Your task to perform on an android device: Clear the cart on bestbuy. Add "macbook air" to the cart on bestbuy Image 0: 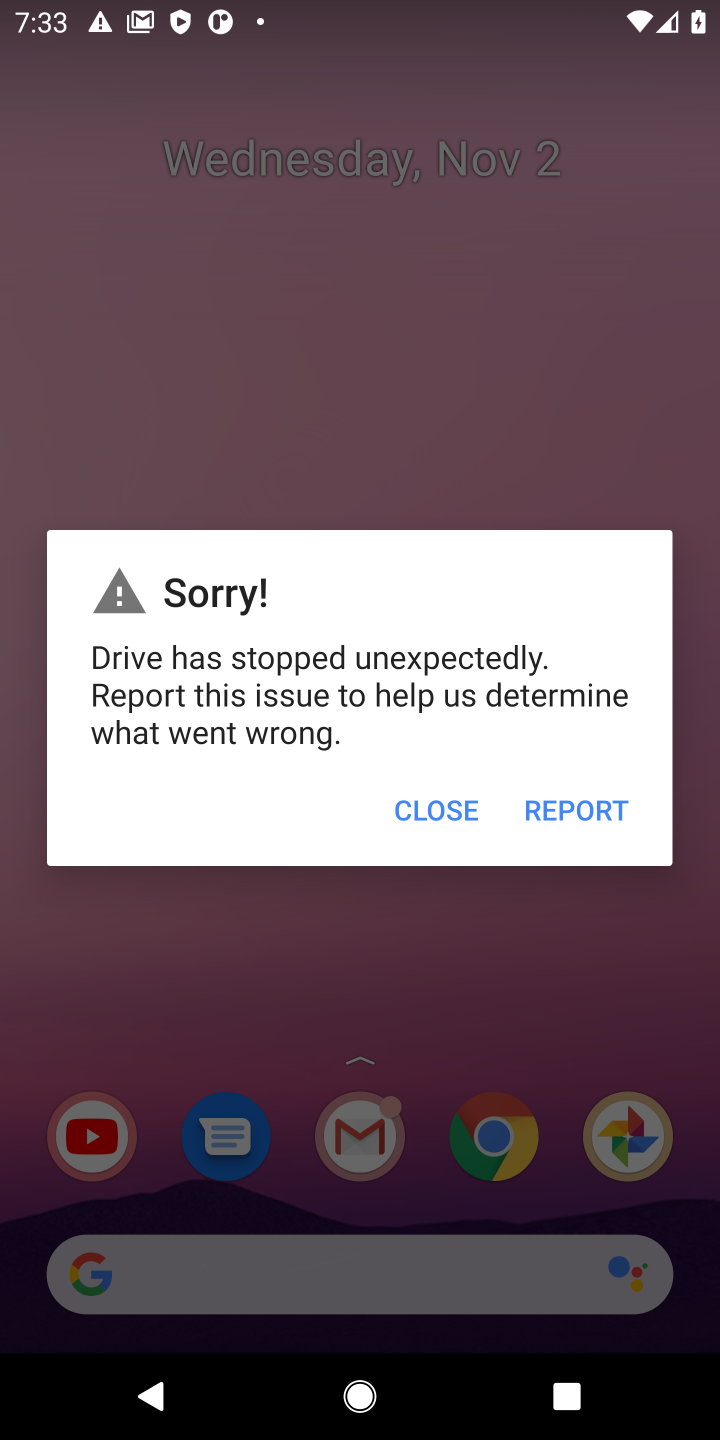
Step 0: press home button
Your task to perform on an android device: Clear the cart on bestbuy. Add "macbook air" to the cart on bestbuy Image 1: 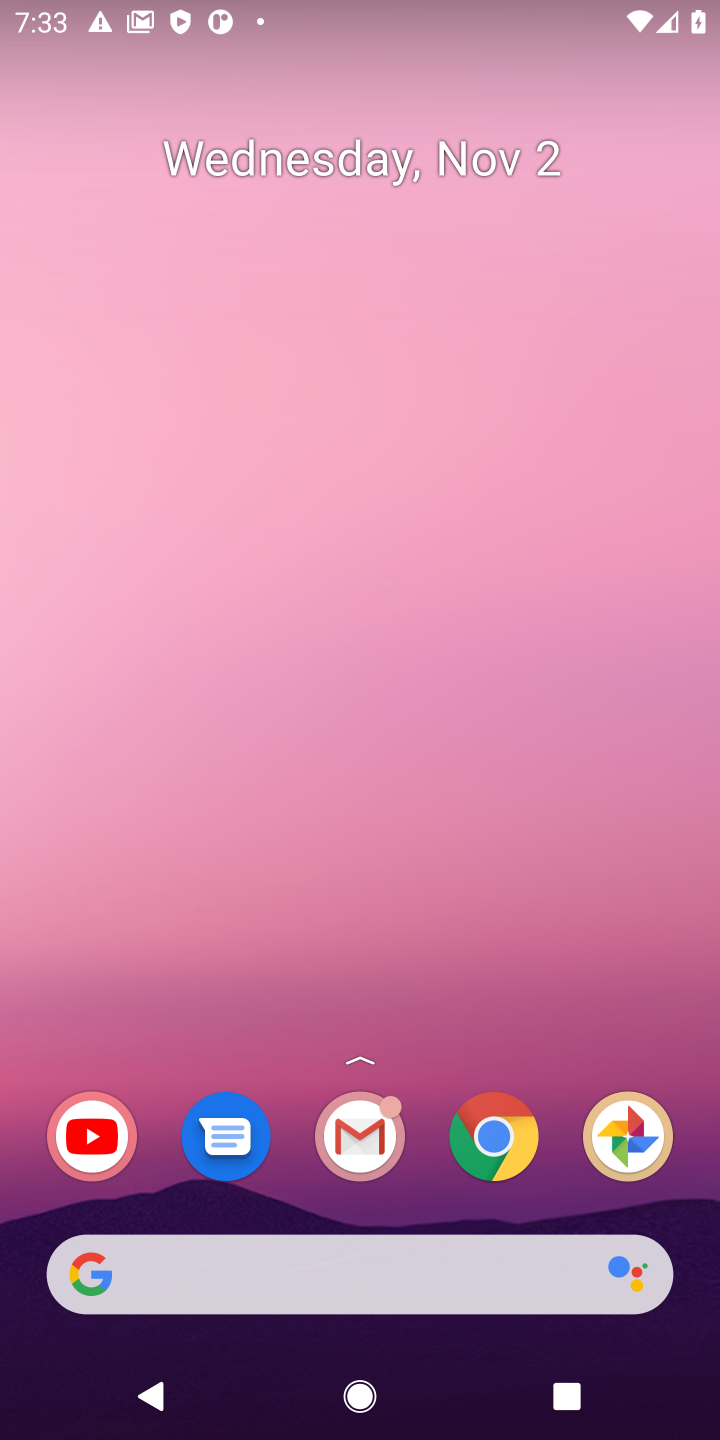
Step 1: drag from (305, 1005) to (329, 277)
Your task to perform on an android device: Clear the cart on bestbuy. Add "macbook air" to the cart on bestbuy Image 2: 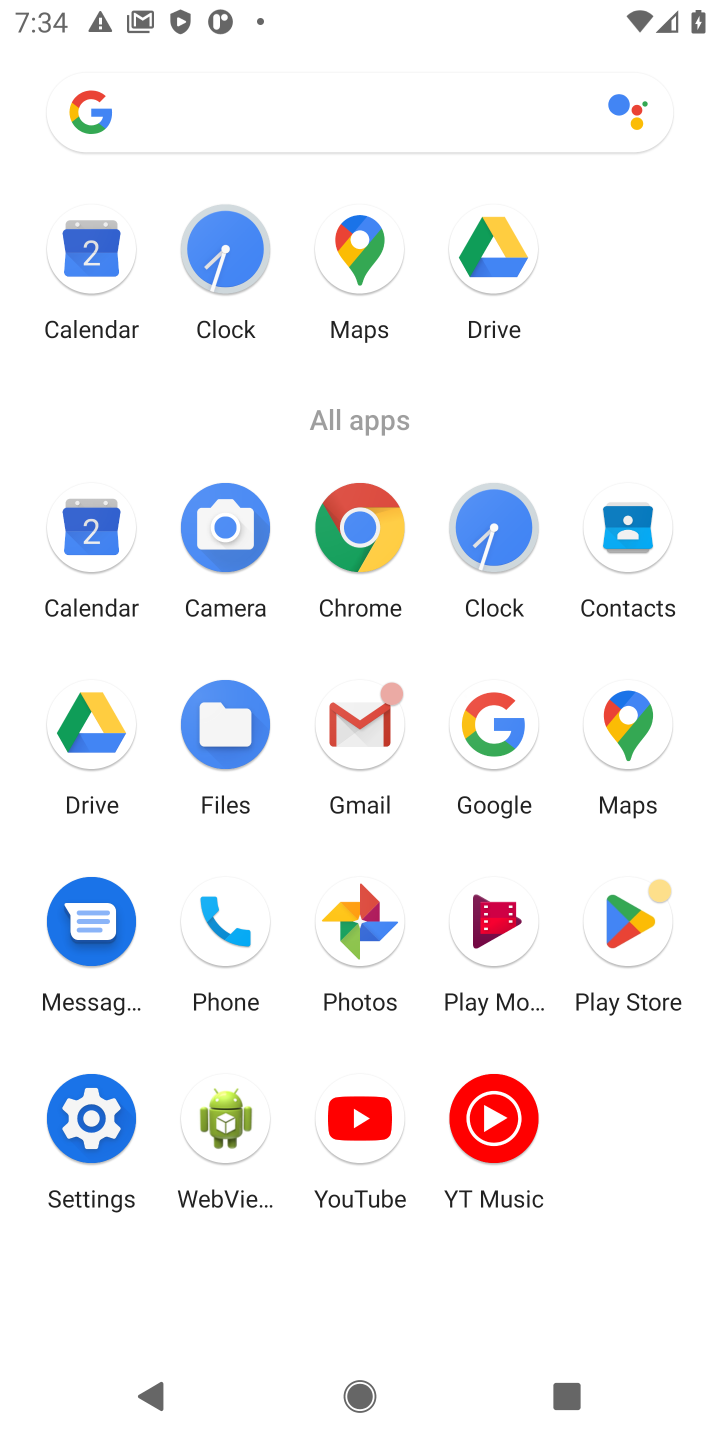
Step 2: click (482, 724)
Your task to perform on an android device: Clear the cart on bestbuy. Add "macbook air" to the cart on bestbuy Image 3: 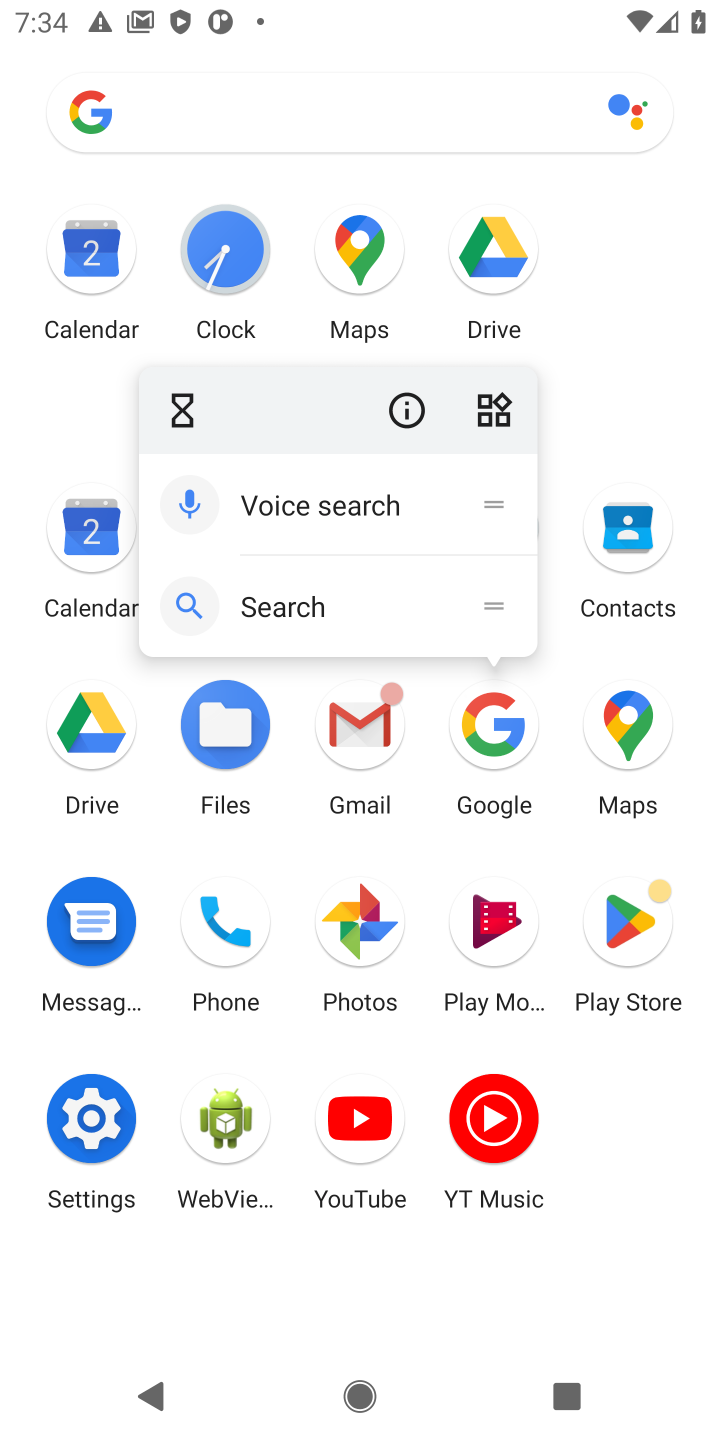
Step 3: click (501, 740)
Your task to perform on an android device: Clear the cart on bestbuy. Add "macbook air" to the cart on bestbuy Image 4: 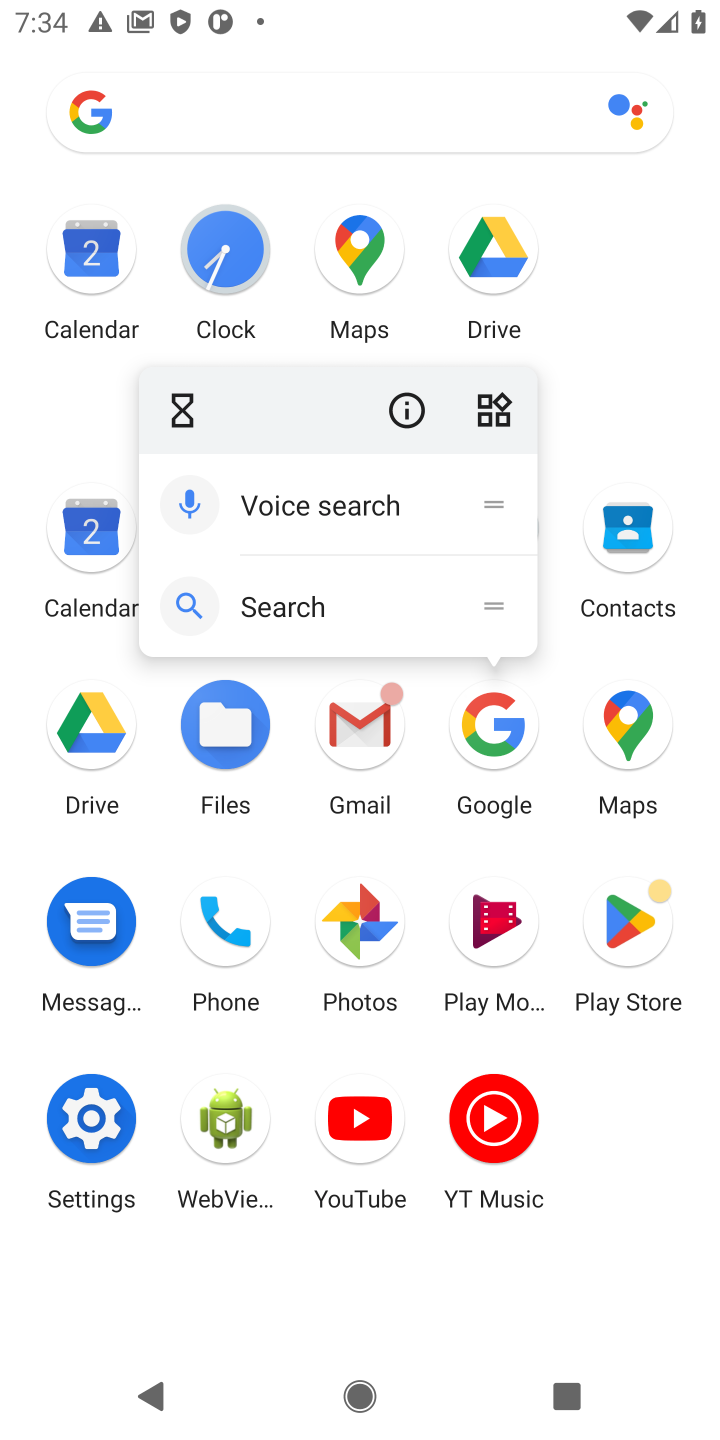
Step 4: click (484, 714)
Your task to perform on an android device: Clear the cart on bestbuy. Add "macbook air" to the cart on bestbuy Image 5: 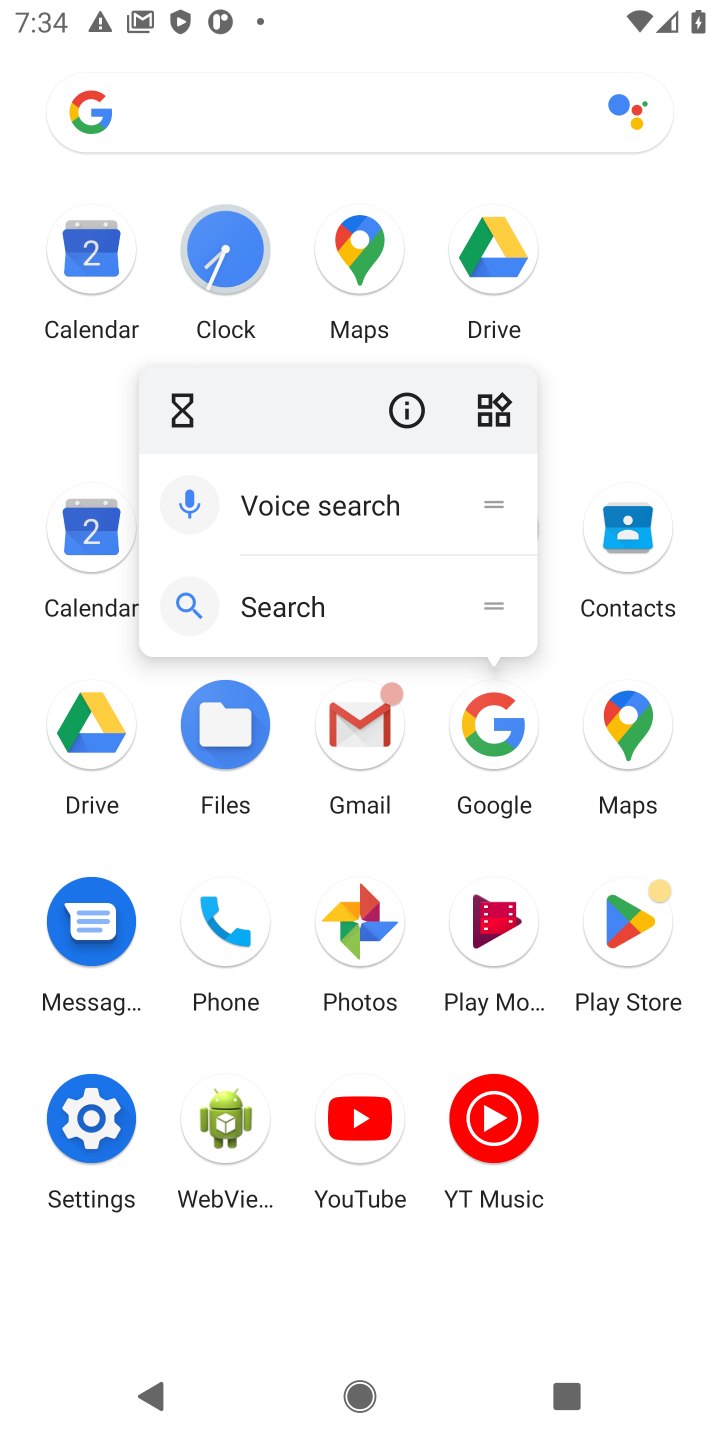
Step 5: click (505, 733)
Your task to perform on an android device: Clear the cart on bestbuy. Add "macbook air" to the cart on bestbuy Image 6: 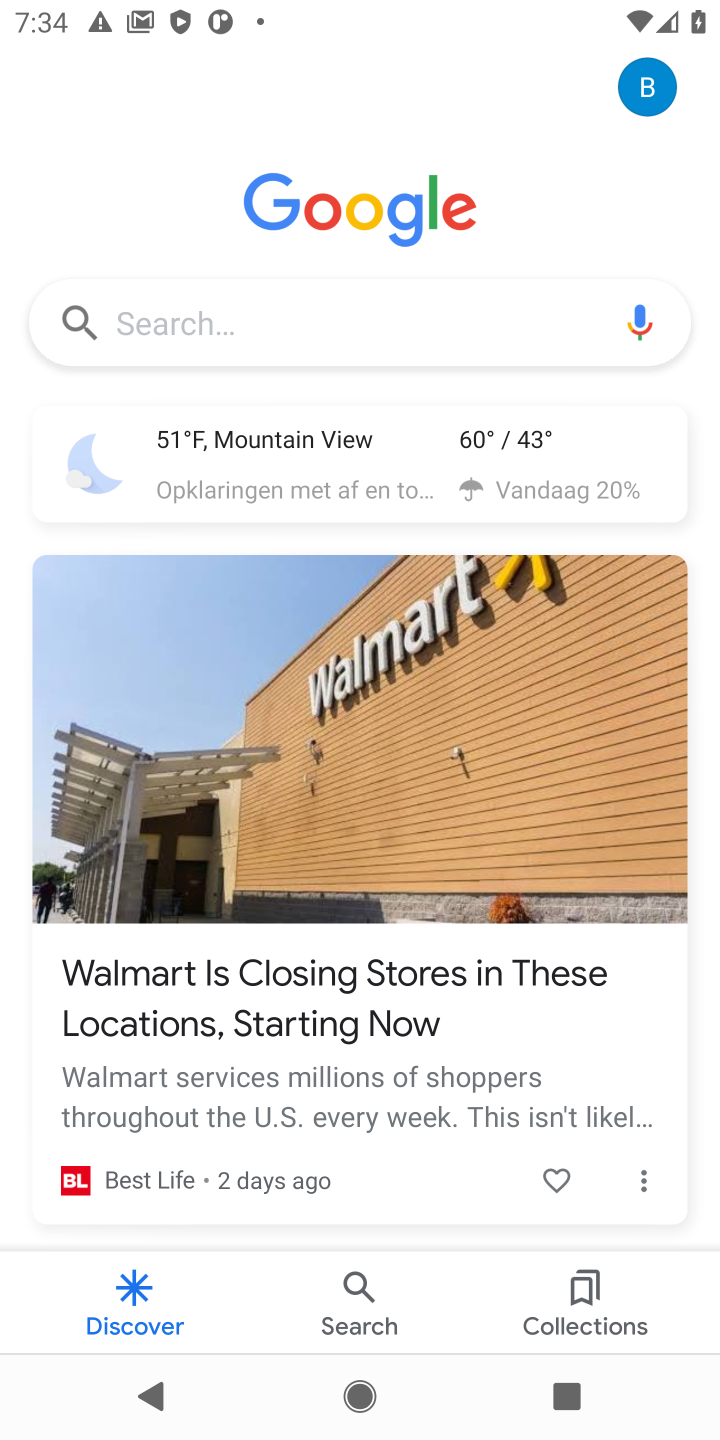
Step 6: click (329, 303)
Your task to perform on an android device: Clear the cart on bestbuy. Add "macbook air" to the cart on bestbuy Image 7: 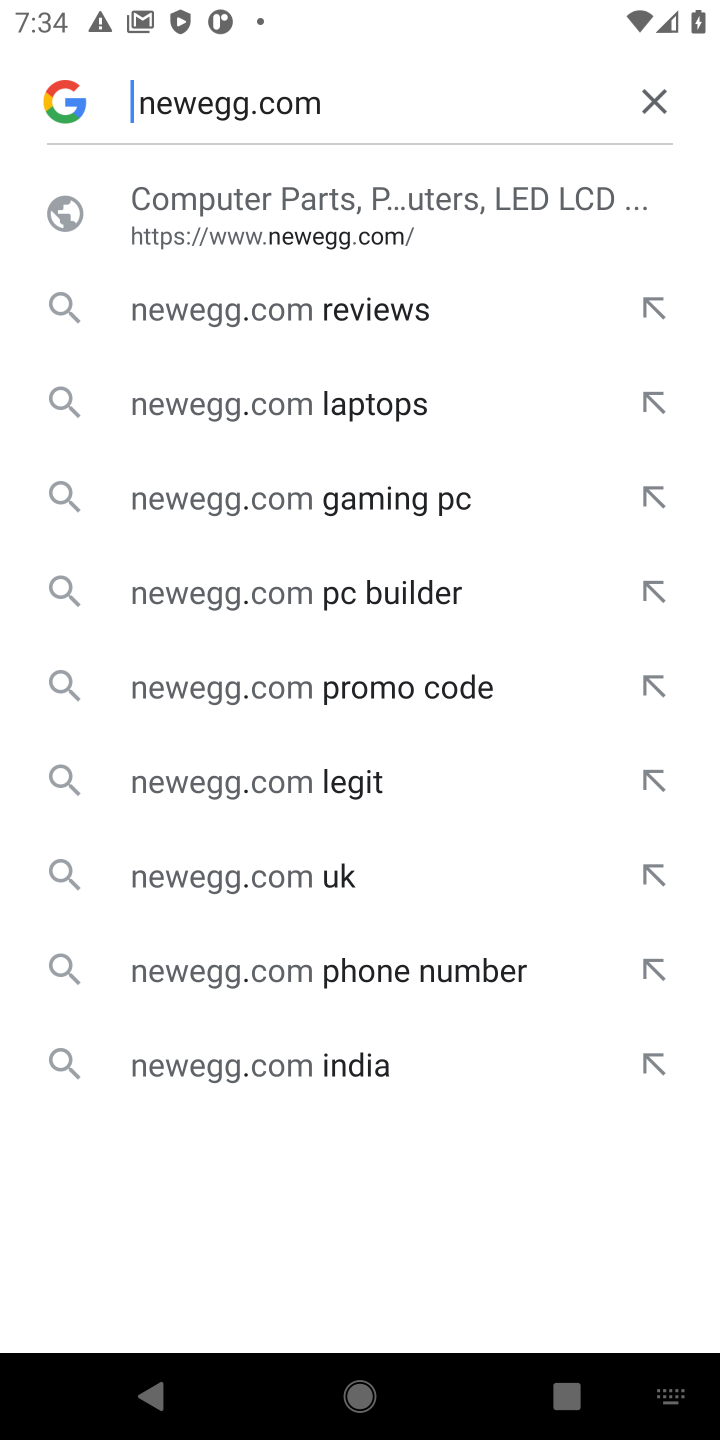
Step 7: type "bestbuy "
Your task to perform on an android device: Clear the cart on bestbuy. Add "macbook air" to the cart on bestbuy Image 8: 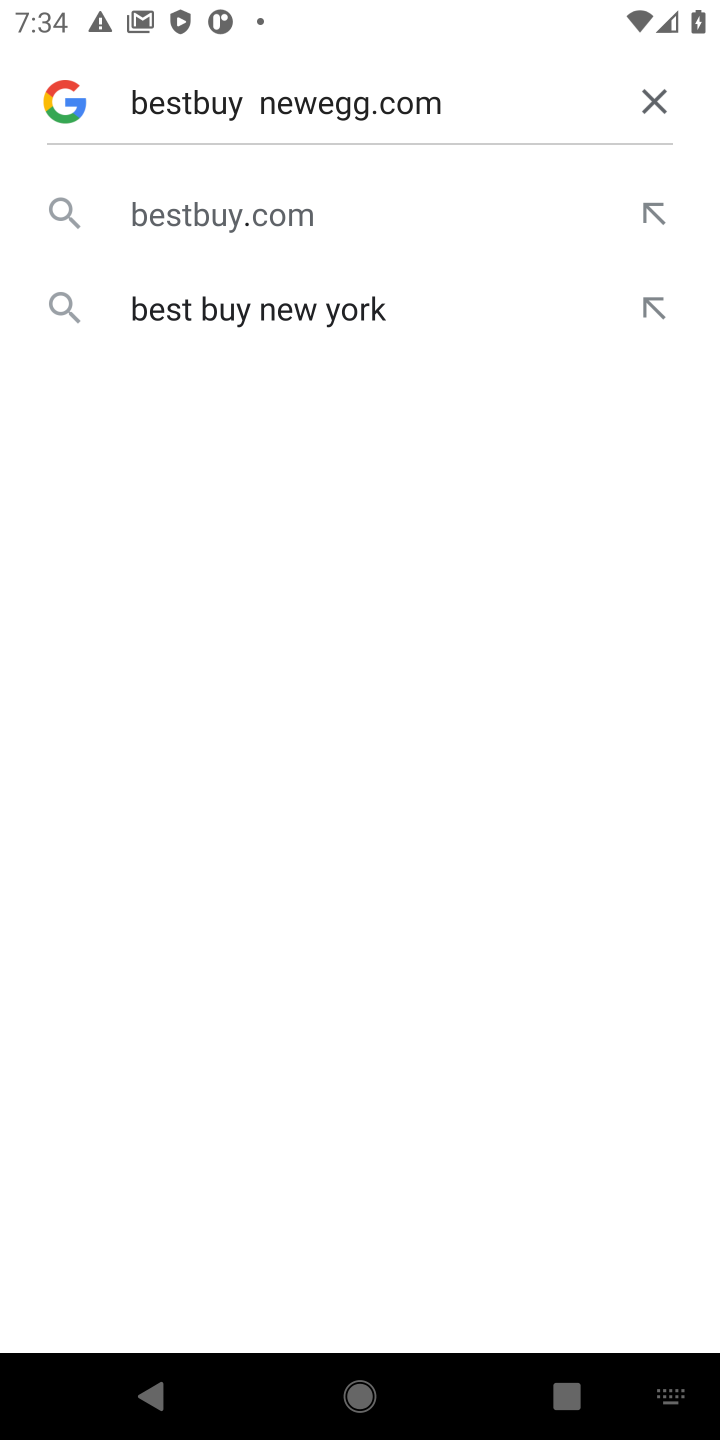
Step 8: click (245, 204)
Your task to perform on an android device: Clear the cart on bestbuy. Add "macbook air" to the cart on bestbuy Image 9: 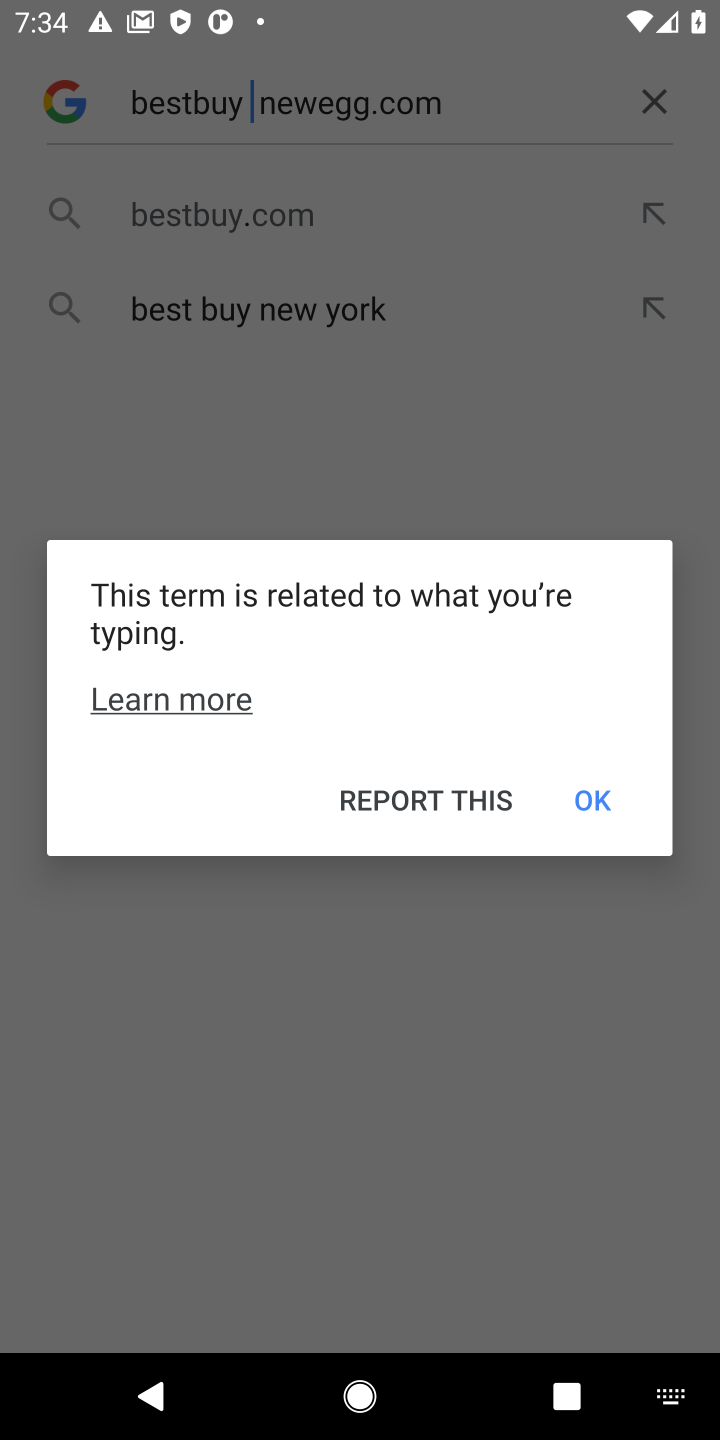
Step 9: click (573, 759)
Your task to perform on an android device: Clear the cart on bestbuy. Add "macbook air" to the cart on bestbuy Image 10: 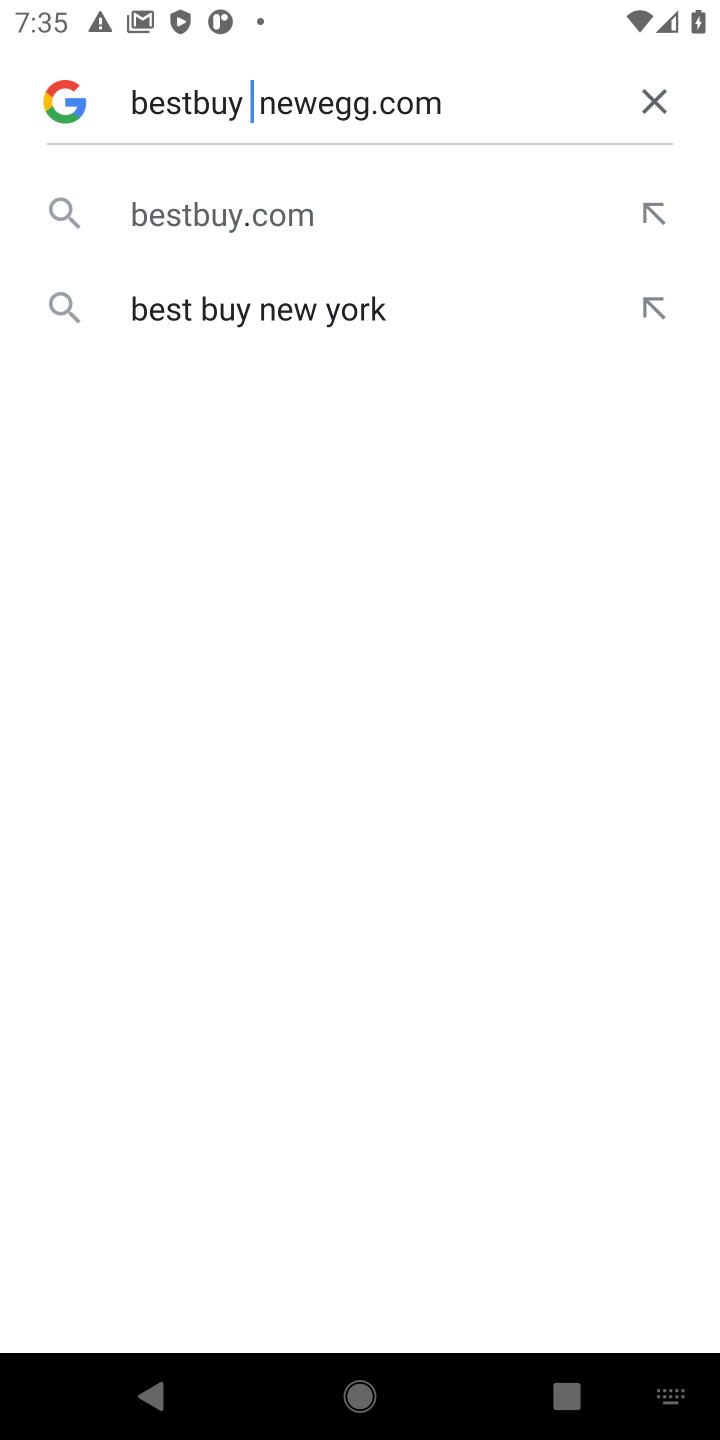
Step 10: click (327, 180)
Your task to perform on an android device: Clear the cart on bestbuy. Add "macbook air" to the cart on bestbuy Image 11: 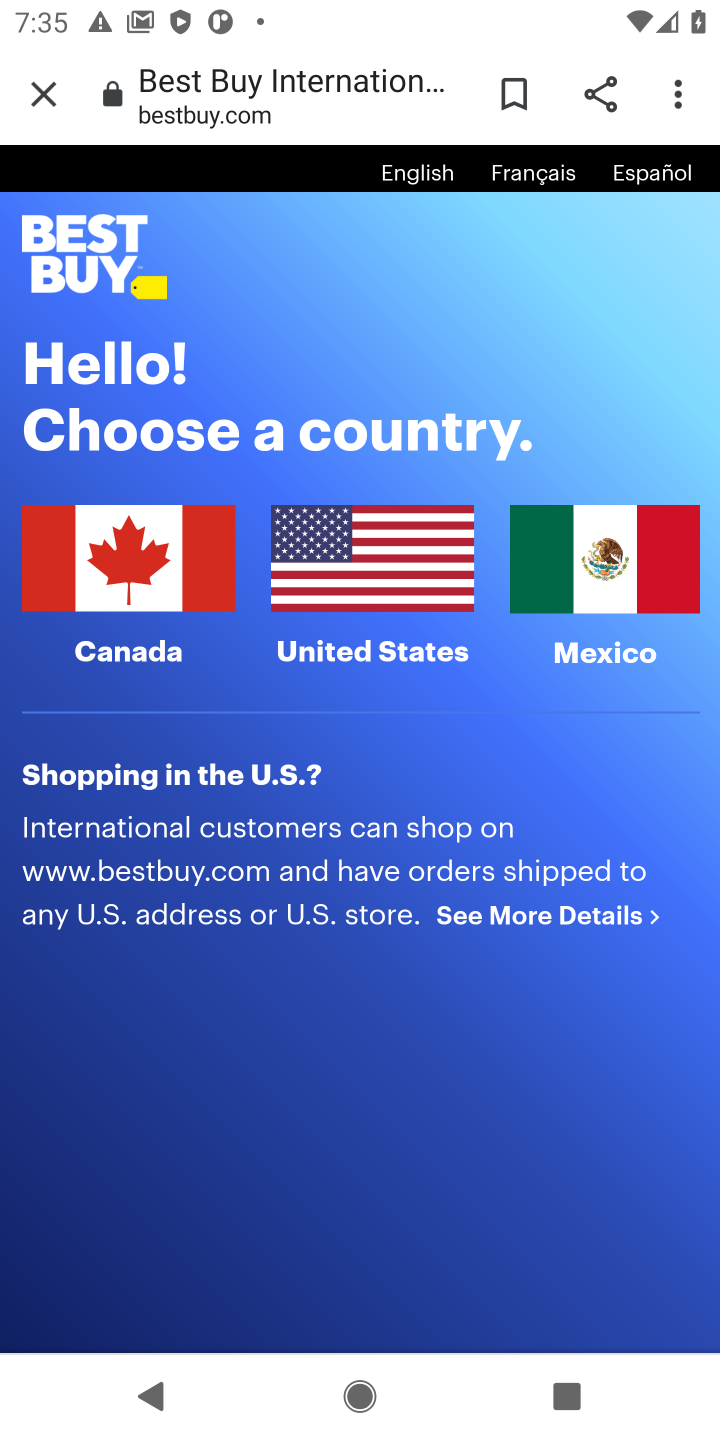
Step 11: click (310, 587)
Your task to perform on an android device: Clear the cart on bestbuy. Add "macbook air" to the cart on bestbuy Image 12: 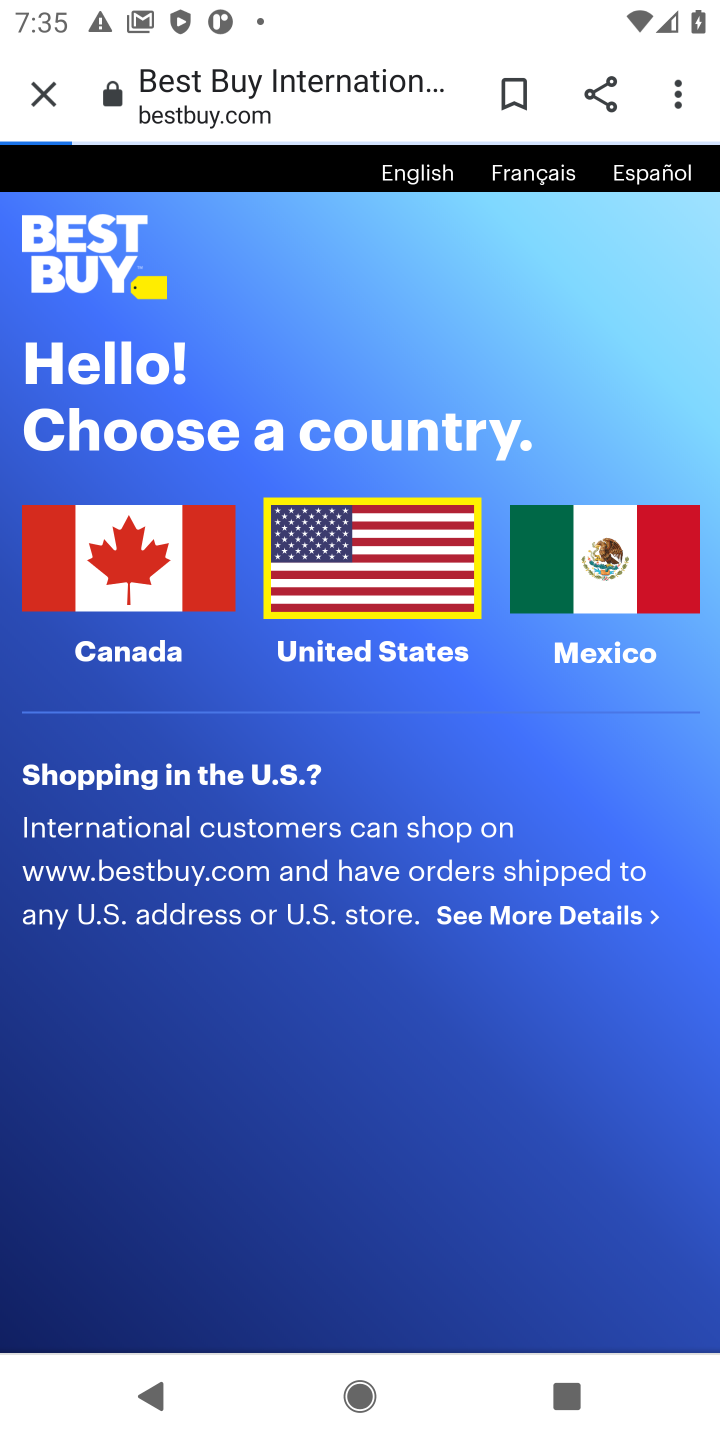
Step 12: click (310, 587)
Your task to perform on an android device: Clear the cart on bestbuy. Add "macbook air" to the cart on bestbuy Image 13: 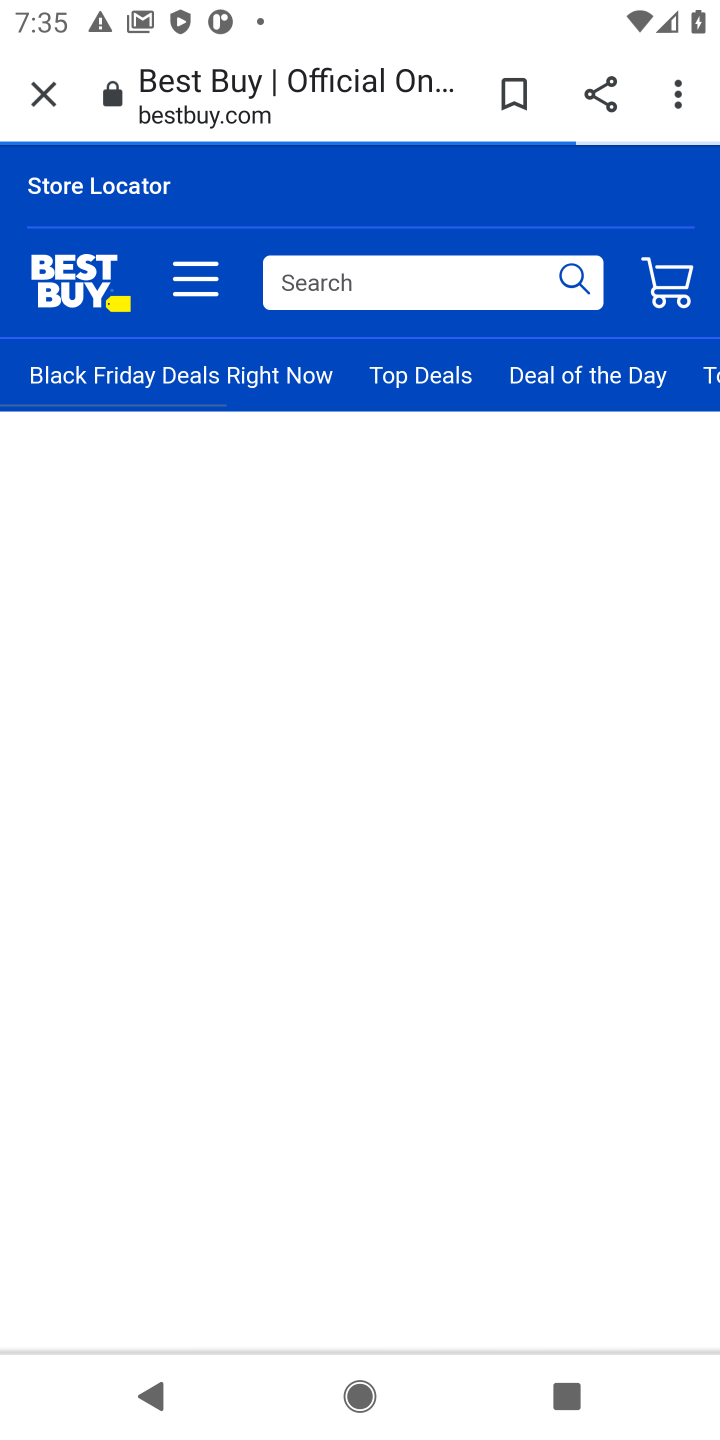
Step 13: click (310, 578)
Your task to perform on an android device: Clear the cart on bestbuy. Add "macbook air" to the cart on bestbuy Image 14: 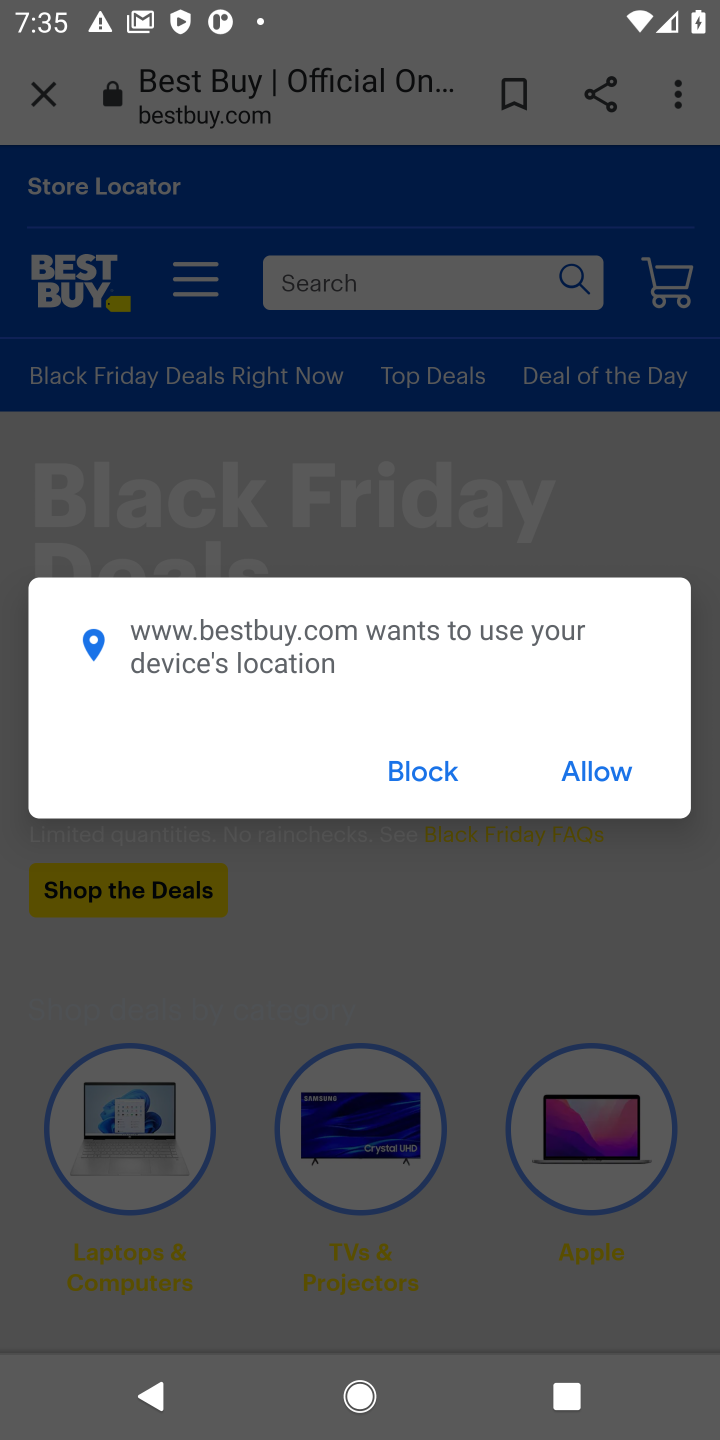
Step 14: click (562, 781)
Your task to perform on an android device: Clear the cart on bestbuy. Add "macbook air" to the cart on bestbuy Image 15: 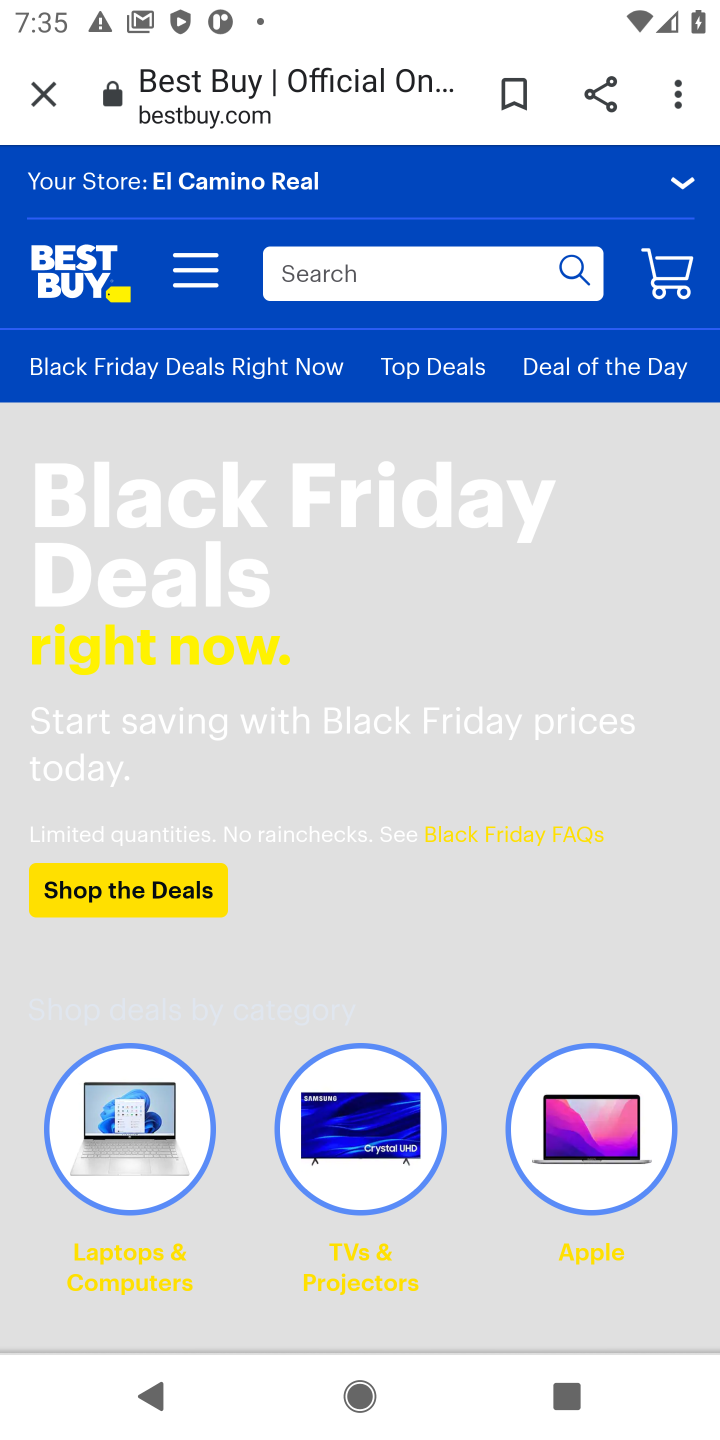
Step 15: click (380, 261)
Your task to perform on an android device: Clear the cart on bestbuy. Add "macbook air" to the cart on bestbuy Image 16: 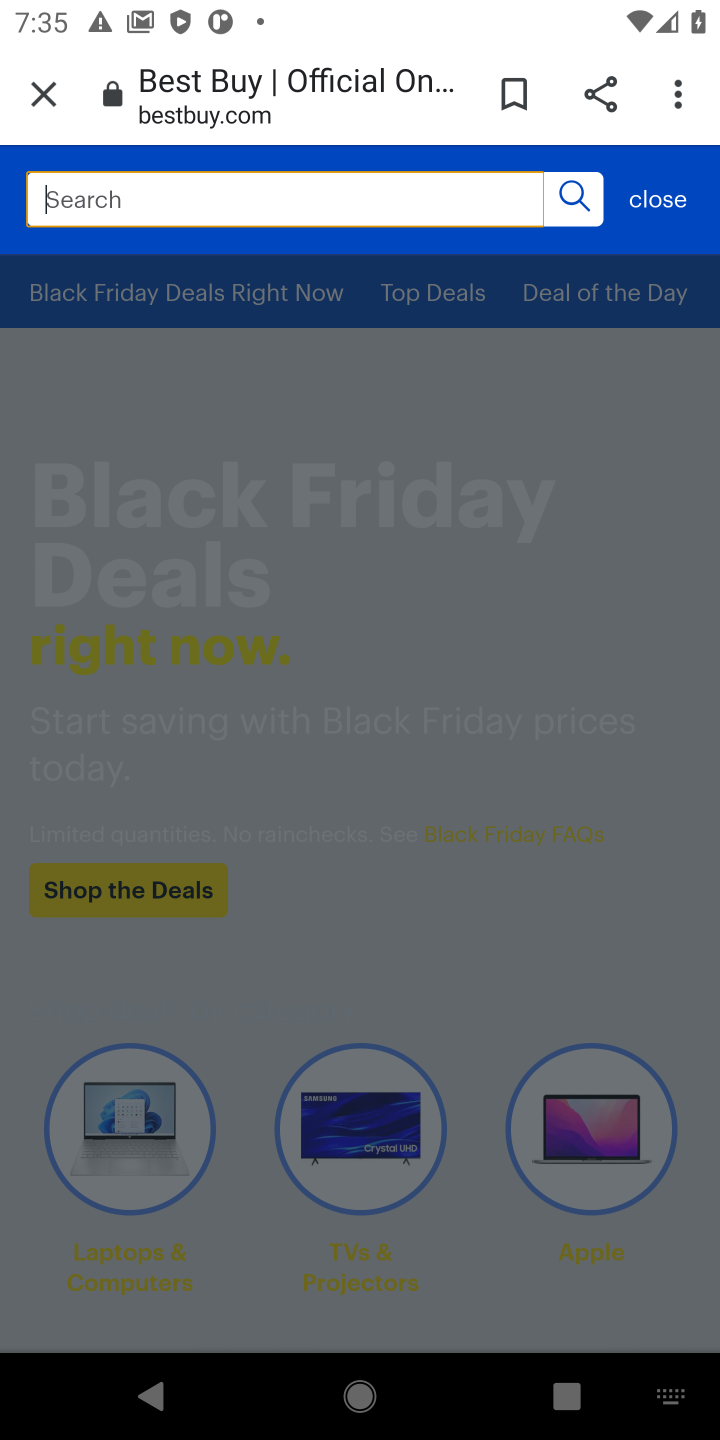
Step 16: type "macbook "
Your task to perform on an android device: Clear the cart on bestbuy. Add "macbook air" to the cart on bestbuy Image 17: 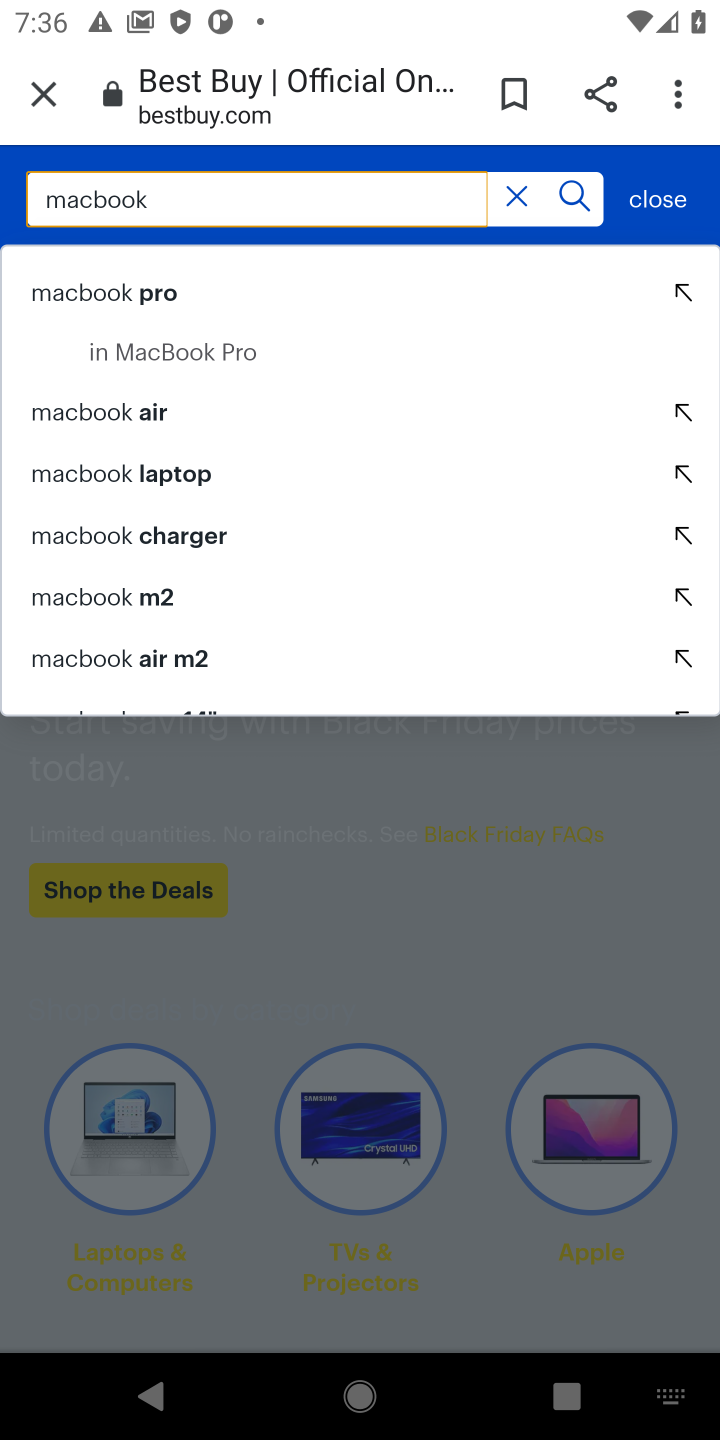
Step 17: click (138, 405)
Your task to perform on an android device: Clear the cart on bestbuy. Add "macbook air" to the cart on bestbuy Image 18: 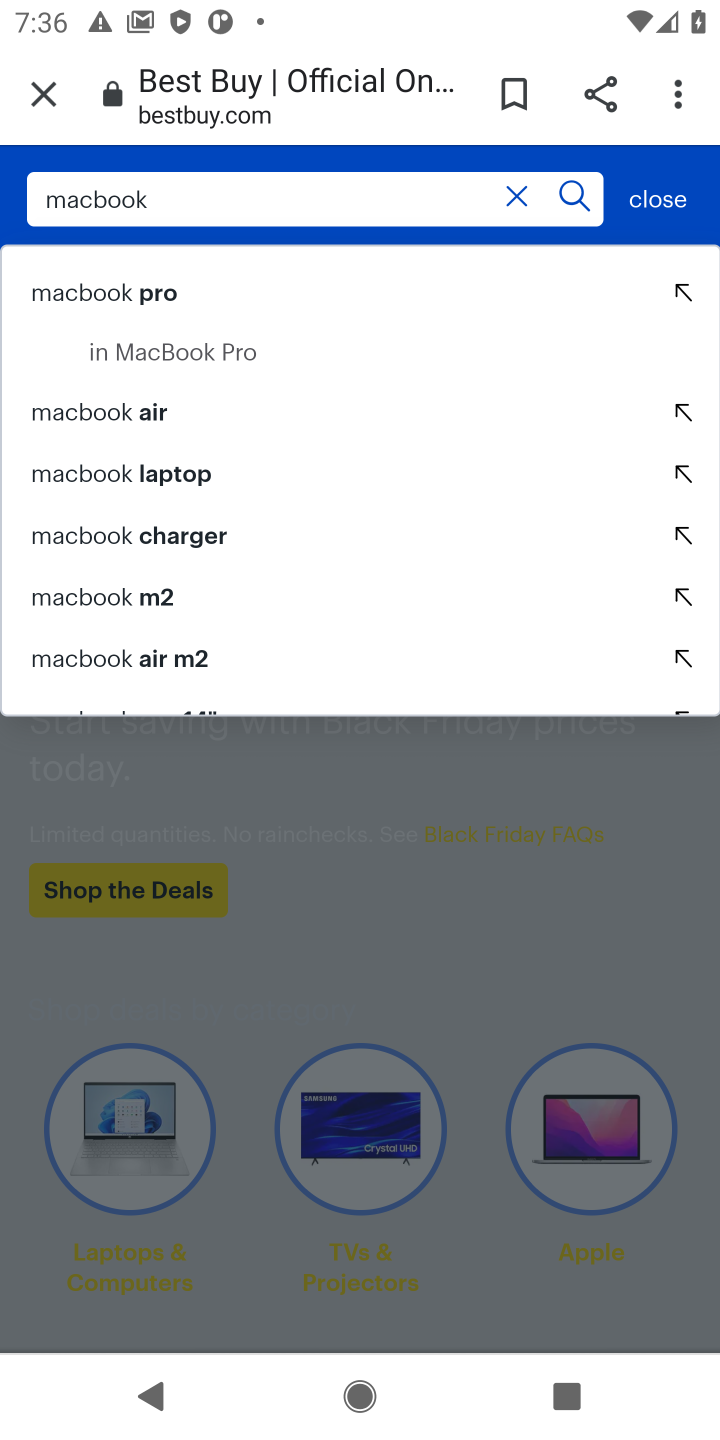
Step 18: click (145, 287)
Your task to perform on an android device: Clear the cart on bestbuy. Add "macbook air" to the cart on bestbuy Image 19: 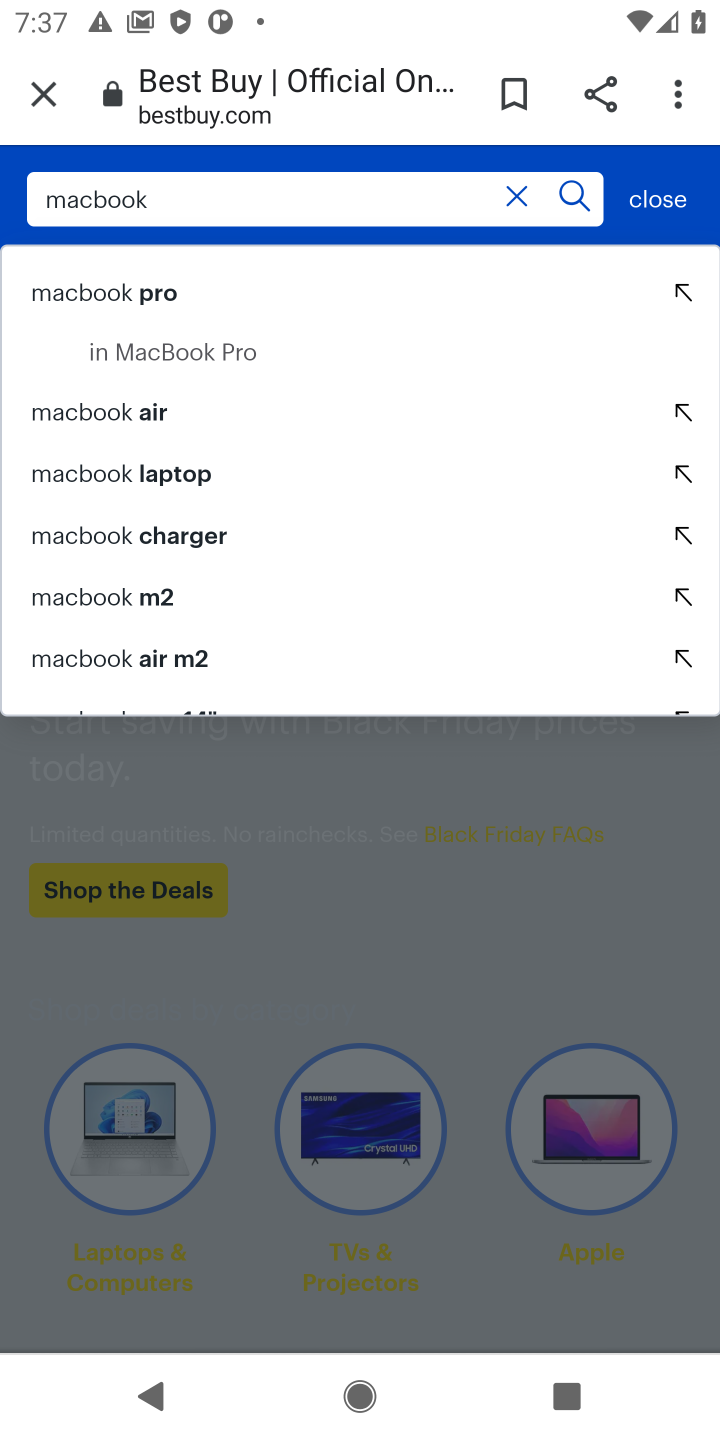
Step 19: click (106, 279)
Your task to perform on an android device: Clear the cart on bestbuy. Add "macbook air" to the cart on bestbuy Image 20: 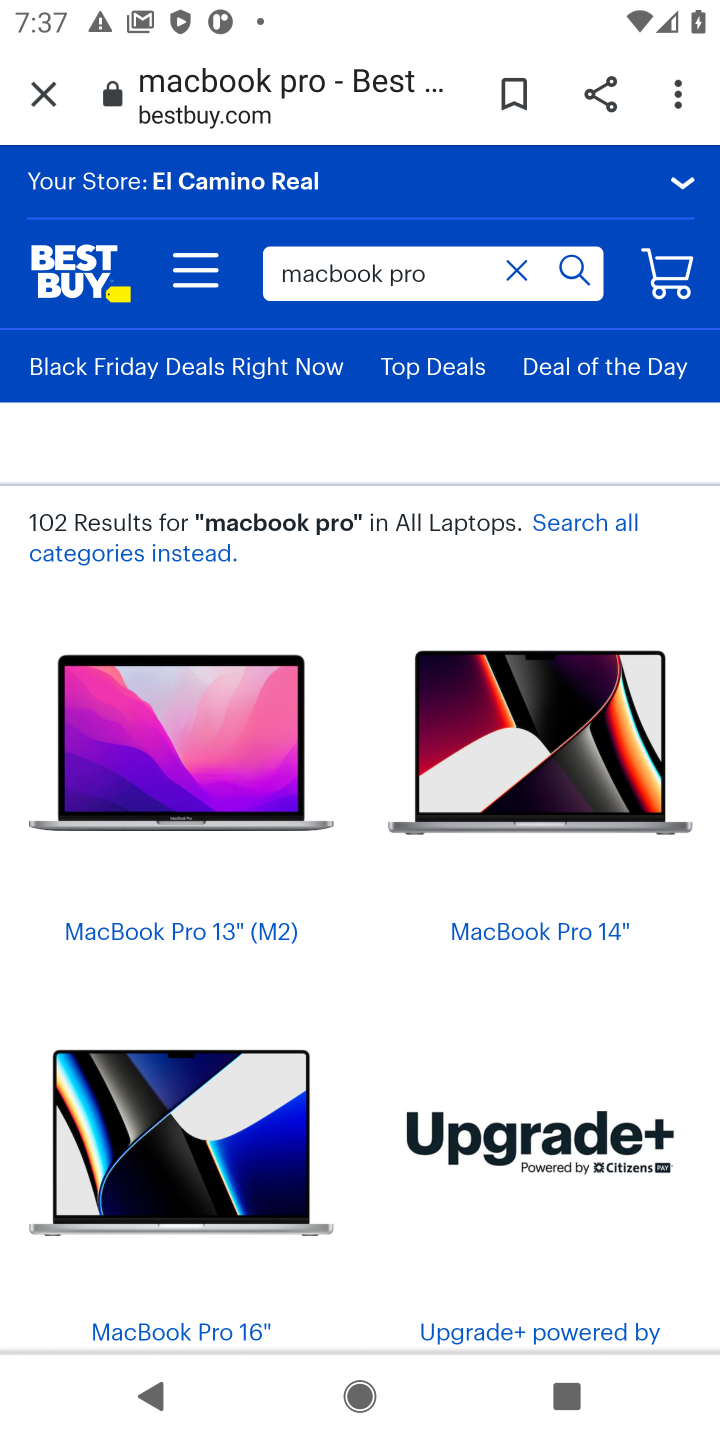
Step 20: click (501, 272)
Your task to perform on an android device: Clear the cart on bestbuy. Add "macbook air" to the cart on bestbuy Image 21: 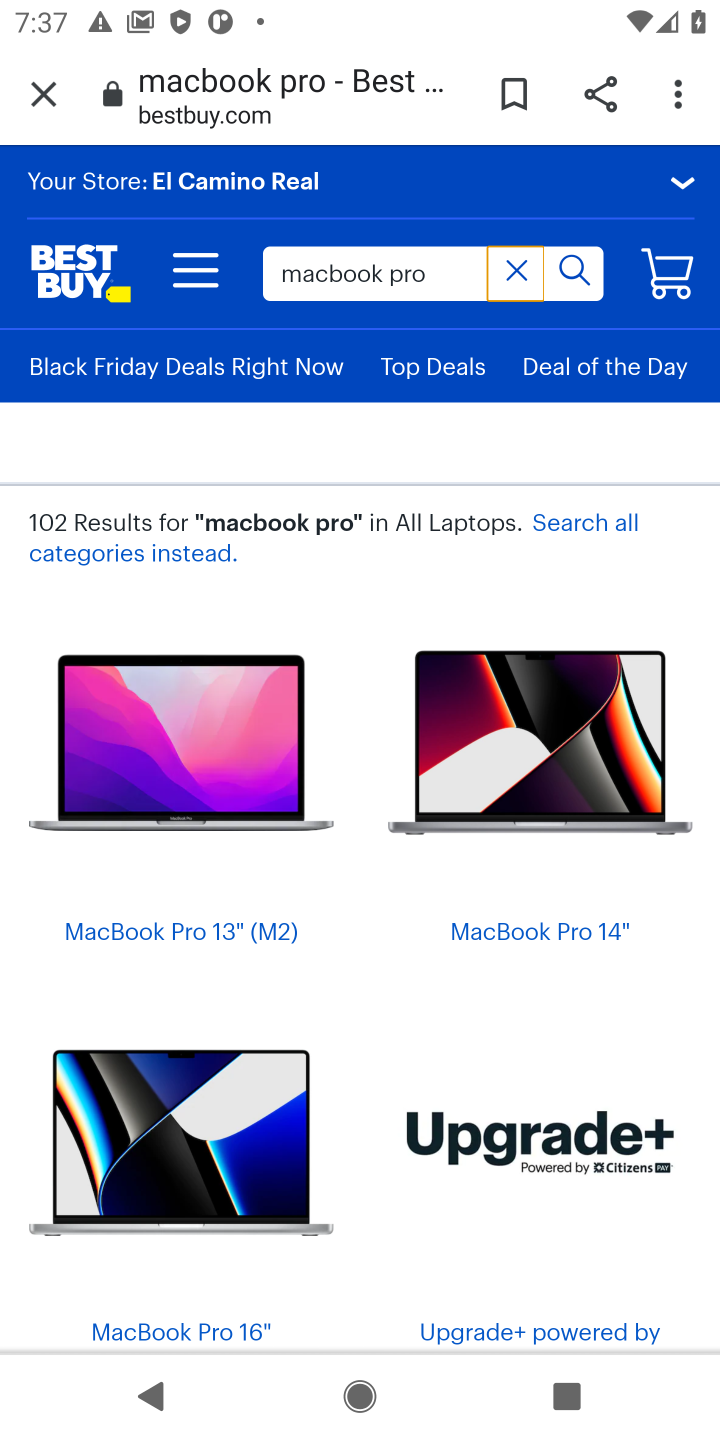
Step 21: click (512, 273)
Your task to perform on an android device: Clear the cart on bestbuy. Add "macbook air" to the cart on bestbuy Image 22: 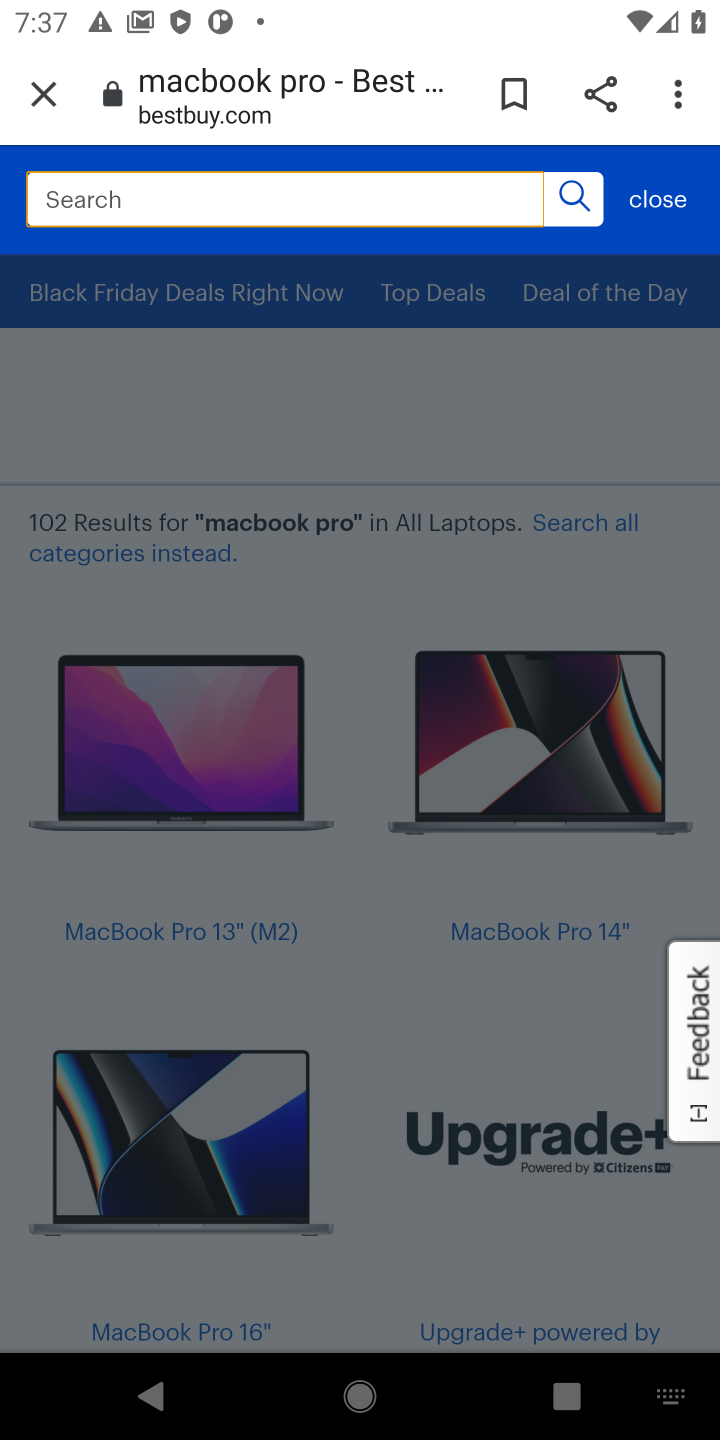
Step 22: click (232, 185)
Your task to perform on an android device: Clear the cart on bestbuy. Add "macbook air" to the cart on bestbuy Image 23: 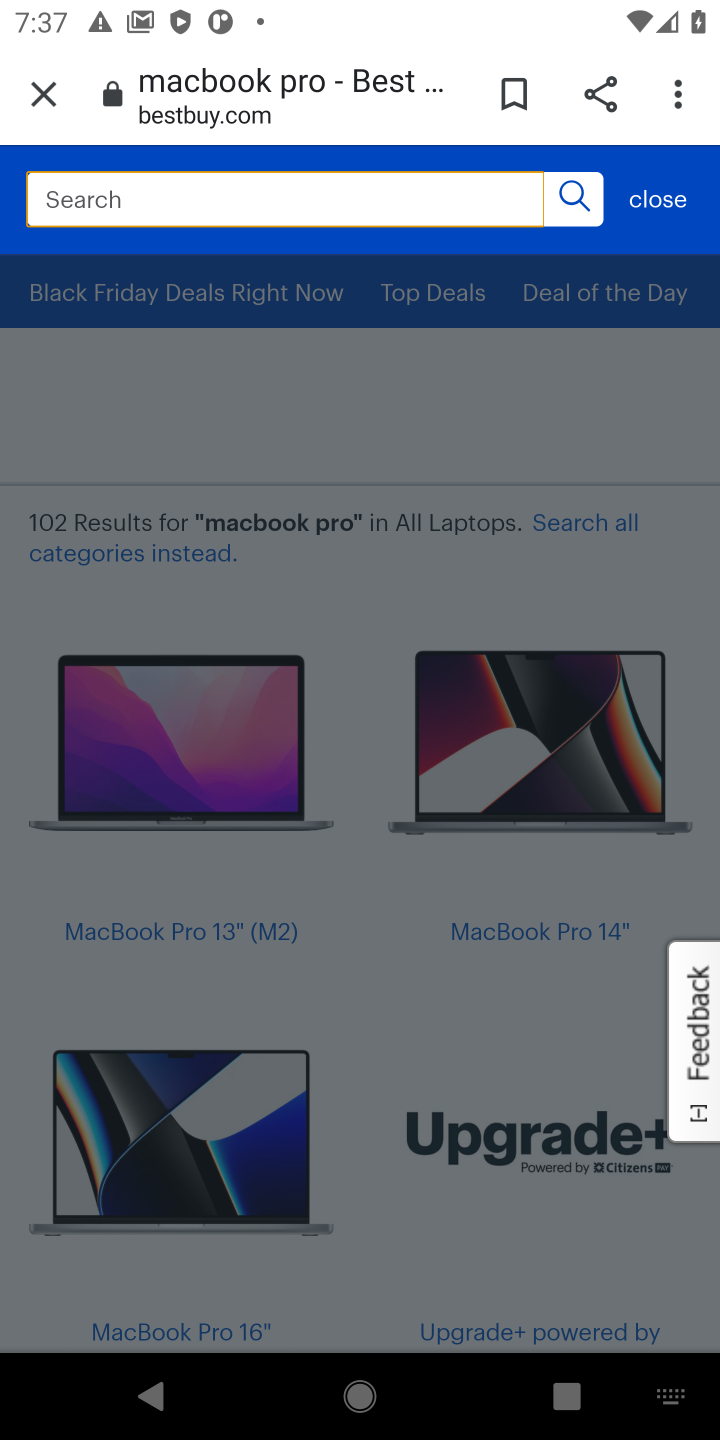
Step 23: type "macbook air "
Your task to perform on an android device: Clear the cart on bestbuy. Add "macbook air" to the cart on bestbuy Image 24: 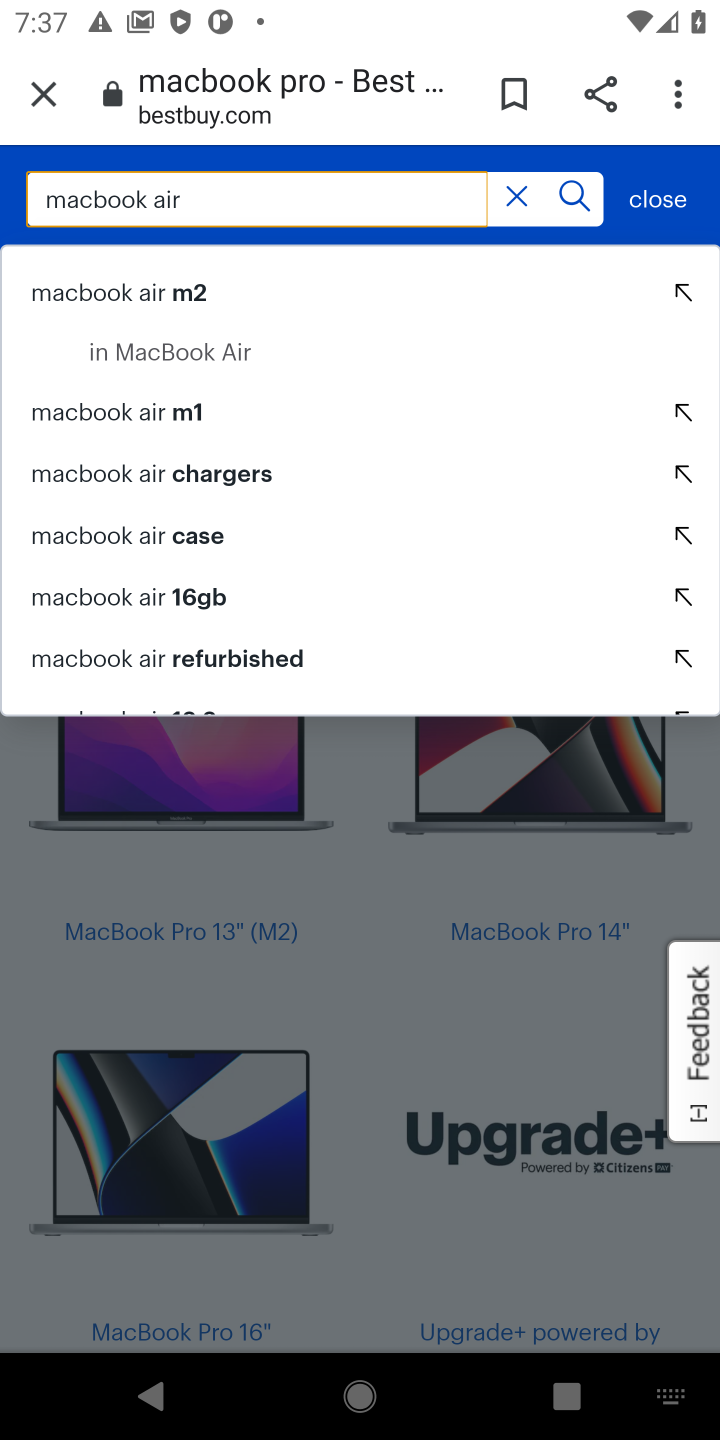
Step 24: click (189, 532)
Your task to perform on an android device: Clear the cart on bestbuy. Add "macbook air" to the cart on bestbuy Image 25: 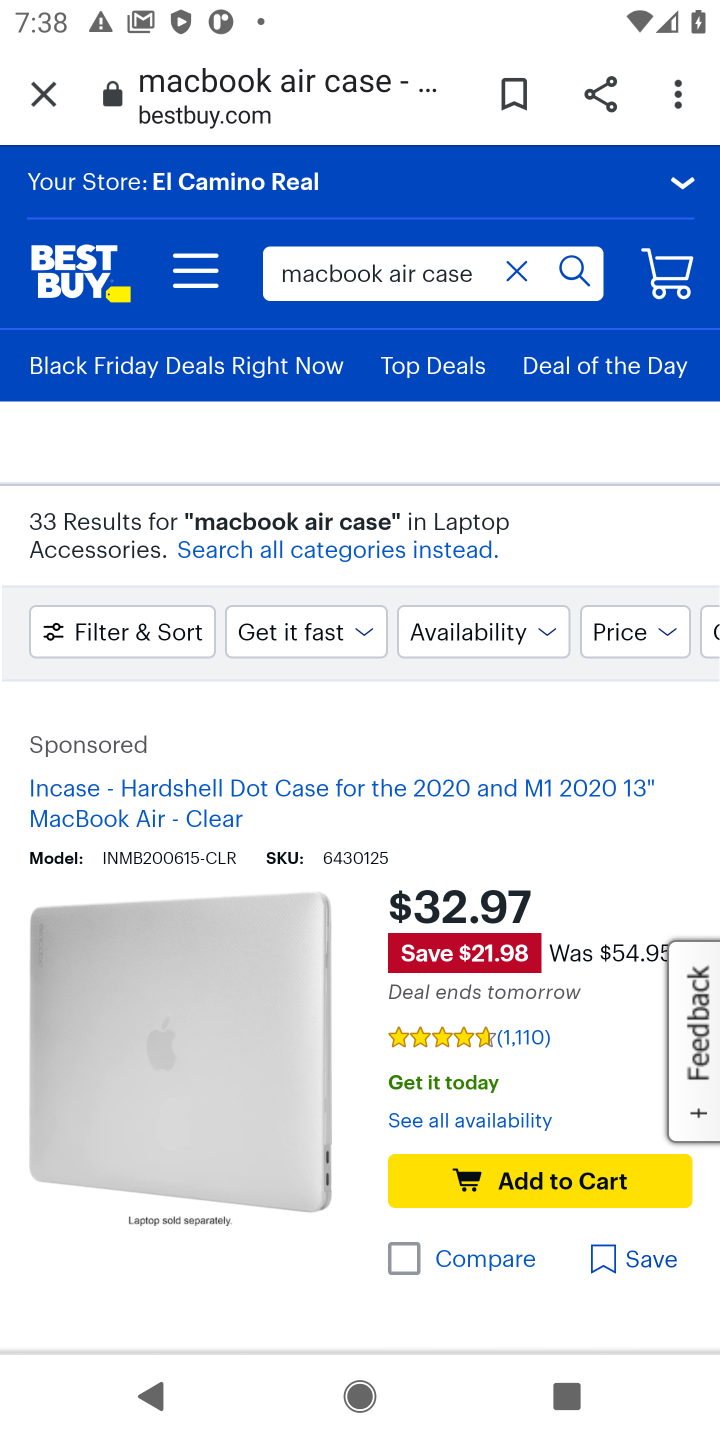
Step 25: click (563, 1175)
Your task to perform on an android device: Clear the cart on bestbuy. Add "macbook air" to the cart on bestbuy Image 26: 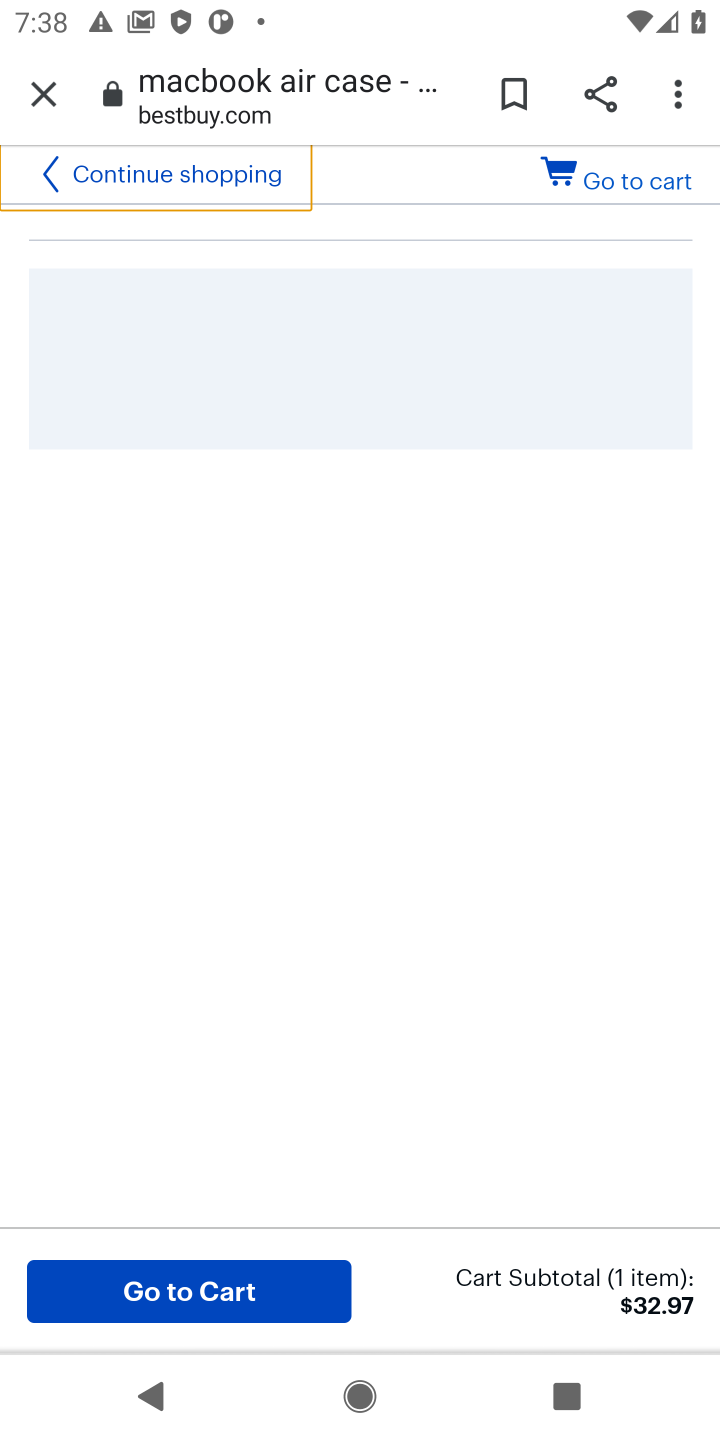
Step 26: task complete